Your task to perform on an android device: What's the weather today? Image 0: 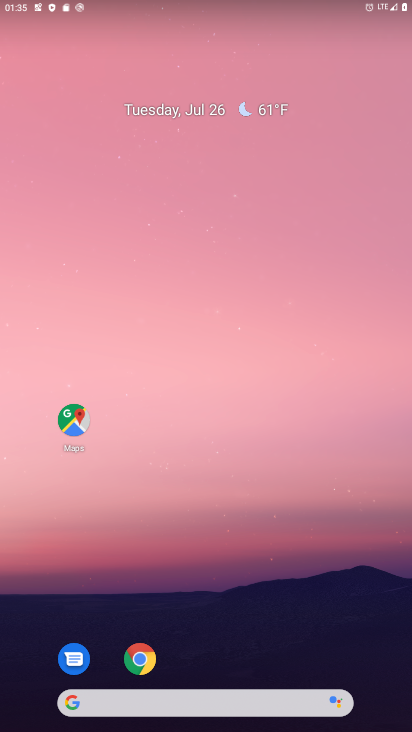
Step 0: drag from (279, 595) to (141, 59)
Your task to perform on an android device: What's the weather today? Image 1: 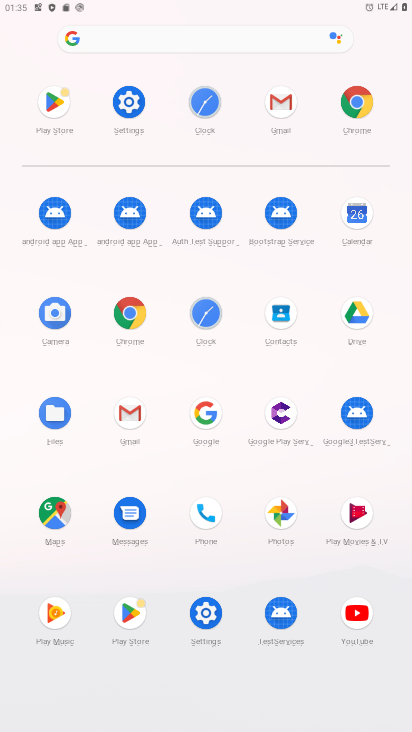
Step 1: click (358, 106)
Your task to perform on an android device: What's the weather today? Image 2: 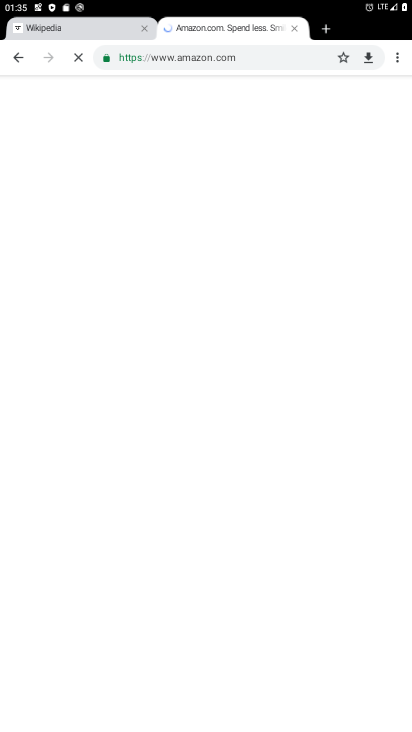
Step 2: click (211, 51)
Your task to perform on an android device: What's the weather today? Image 3: 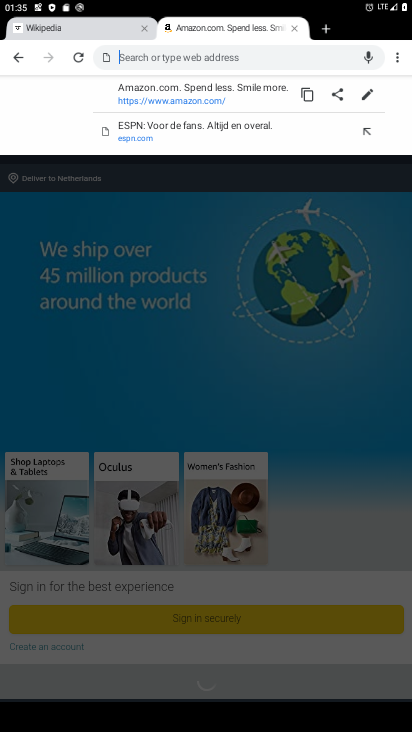
Step 3: type "weather"
Your task to perform on an android device: What's the weather today? Image 4: 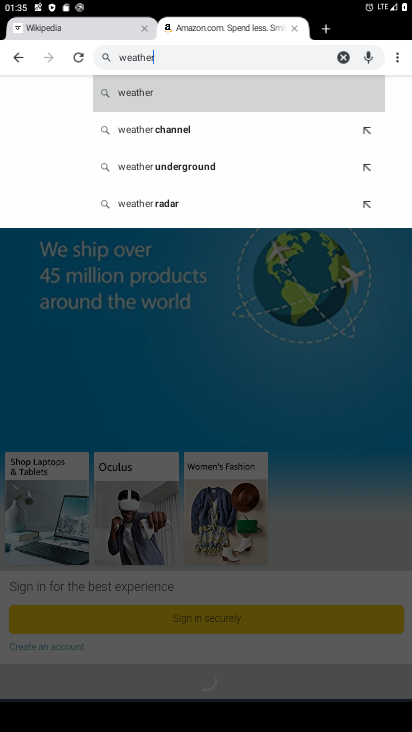
Step 4: click (163, 92)
Your task to perform on an android device: What's the weather today? Image 5: 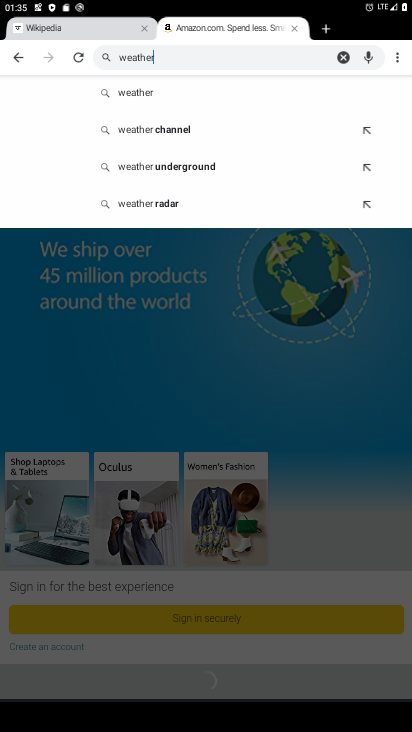
Step 5: click (130, 91)
Your task to perform on an android device: What's the weather today? Image 6: 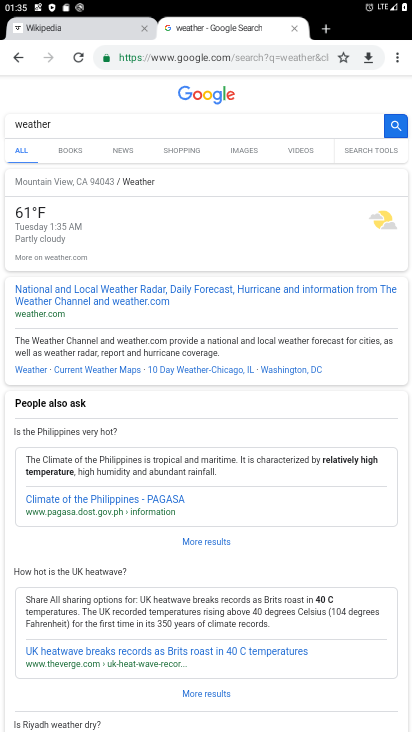
Step 6: task complete